Your task to perform on an android device: open app "Speedtest by Ookla" Image 0: 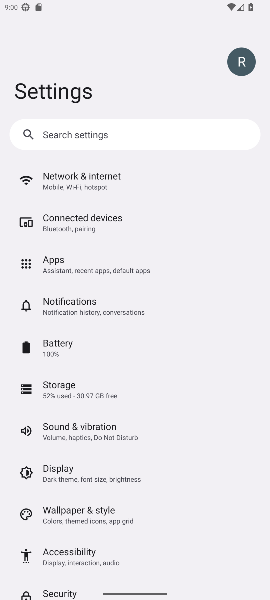
Step 0: press home button
Your task to perform on an android device: open app "Speedtest by Ookla" Image 1: 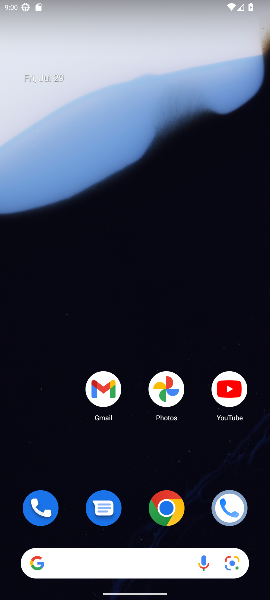
Step 1: drag from (95, 541) to (155, 10)
Your task to perform on an android device: open app "Speedtest by Ookla" Image 2: 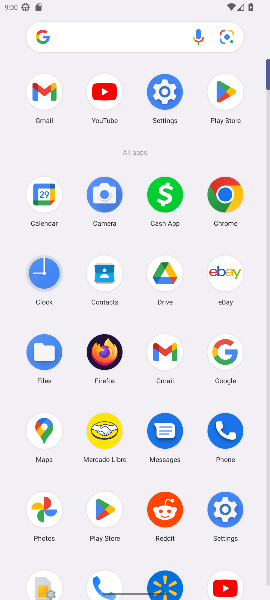
Step 2: click (230, 95)
Your task to perform on an android device: open app "Speedtest by Ookla" Image 3: 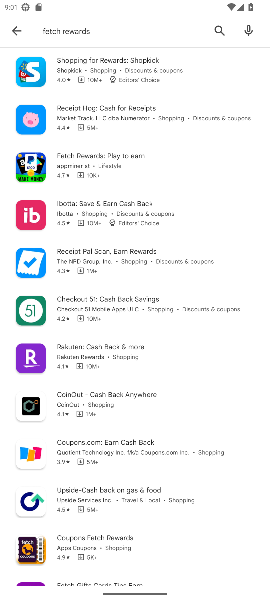
Step 3: click (217, 30)
Your task to perform on an android device: open app "Speedtest by Ookla" Image 4: 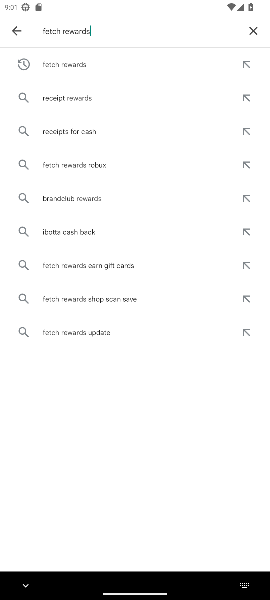
Step 4: click (253, 35)
Your task to perform on an android device: open app "Speedtest by Ookla" Image 5: 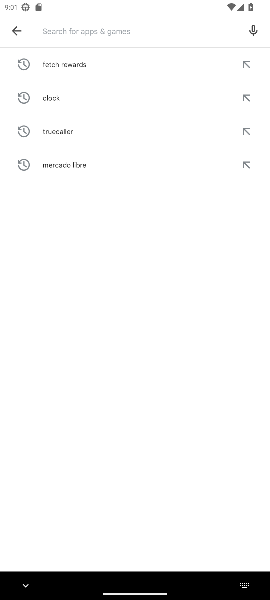
Step 5: type "speedtest by ookla"
Your task to perform on an android device: open app "Speedtest by Ookla" Image 6: 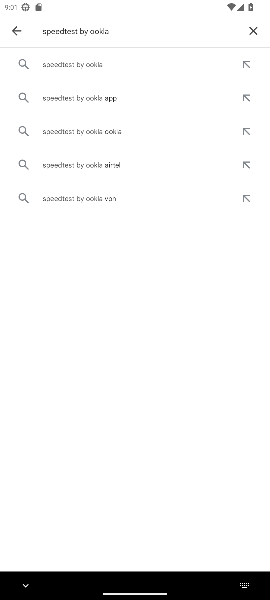
Step 6: click (111, 70)
Your task to perform on an android device: open app "Speedtest by Ookla" Image 7: 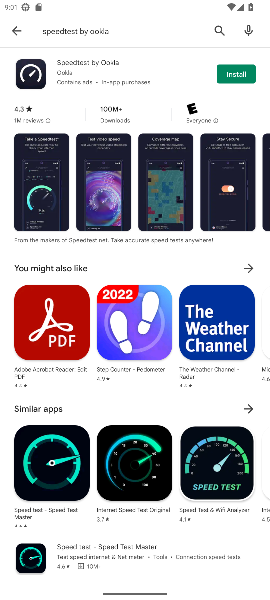
Step 7: task complete